Your task to perform on an android device: Go to network settings Image 0: 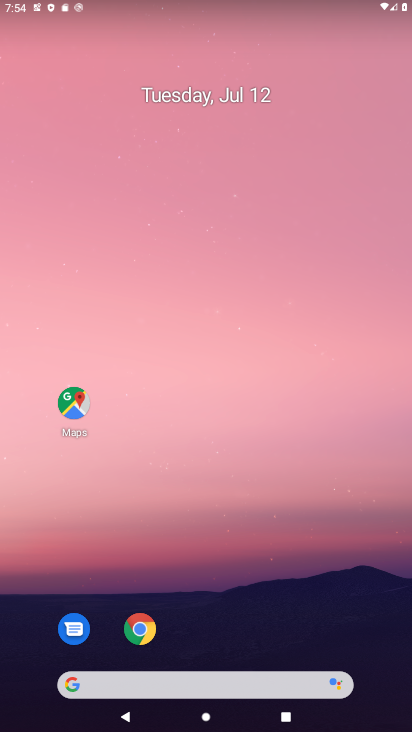
Step 0: drag from (177, 444) to (177, 254)
Your task to perform on an android device: Go to network settings Image 1: 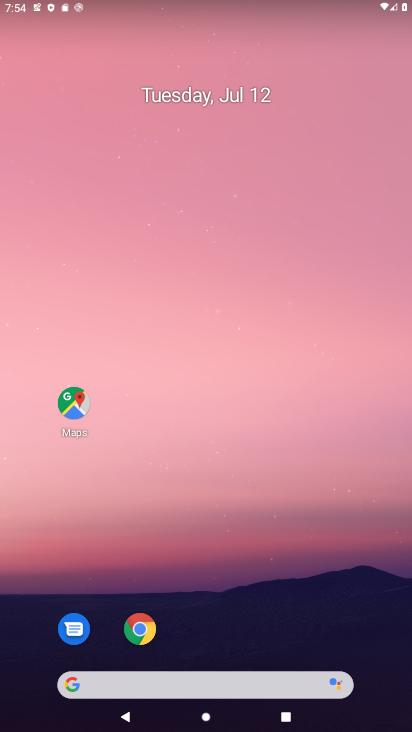
Step 1: drag from (263, 643) to (216, 199)
Your task to perform on an android device: Go to network settings Image 2: 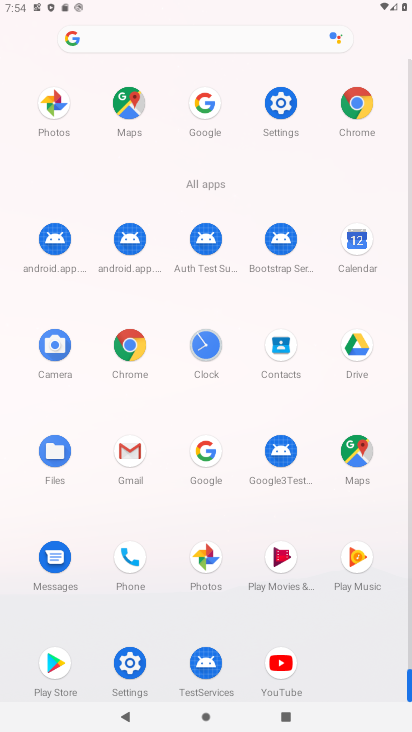
Step 2: click (264, 94)
Your task to perform on an android device: Go to network settings Image 3: 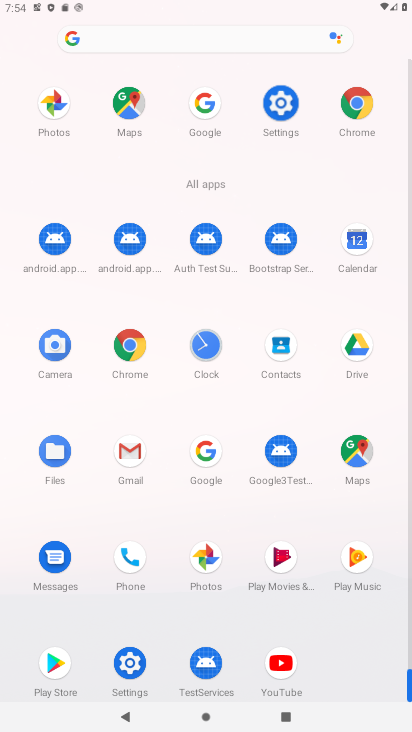
Step 3: click (264, 95)
Your task to perform on an android device: Go to network settings Image 4: 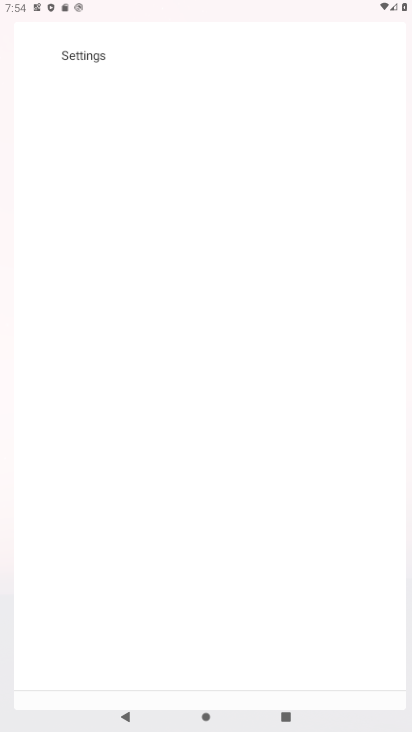
Step 4: click (267, 98)
Your task to perform on an android device: Go to network settings Image 5: 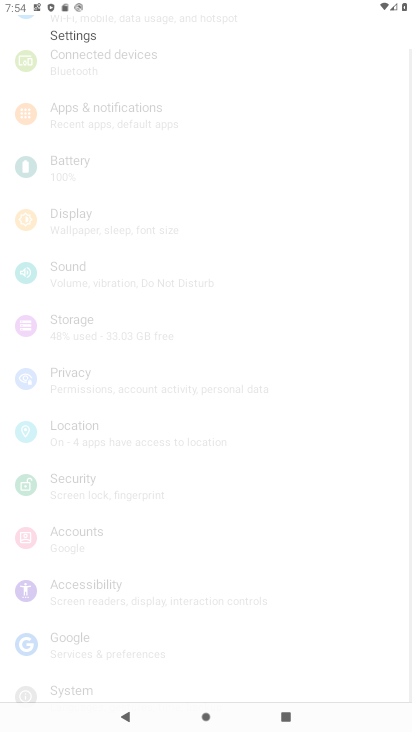
Step 5: click (270, 99)
Your task to perform on an android device: Go to network settings Image 6: 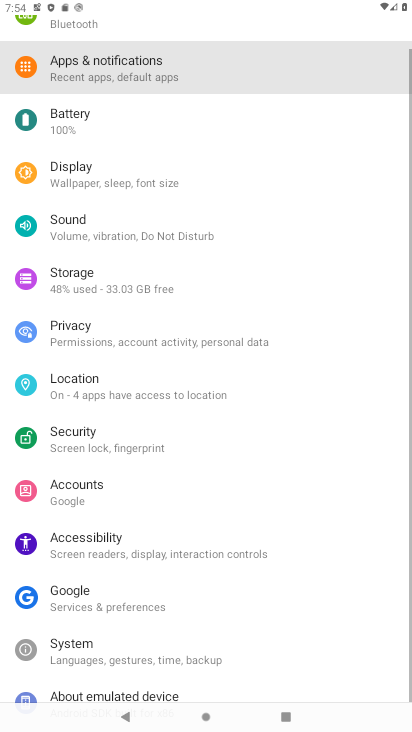
Step 6: click (206, 569)
Your task to perform on an android device: Go to network settings Image 7: 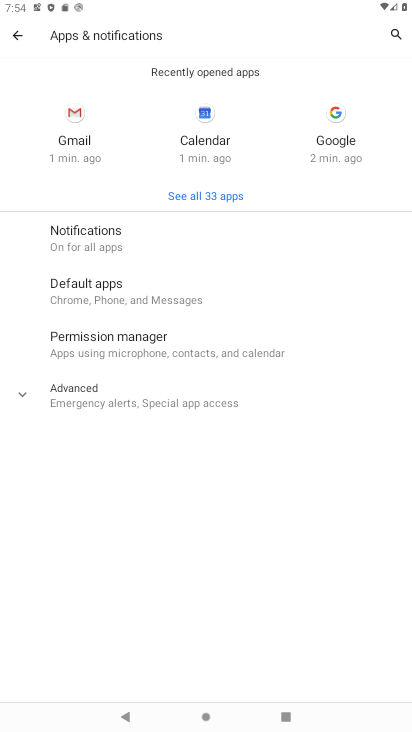
Step 7: click (11, 32)
Your task to perform on an android device: Go to network settings Image 8: 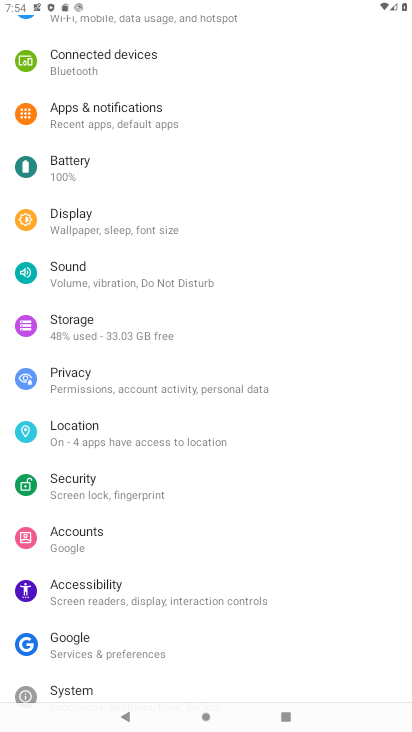
Step 8: drag from (95, 60) to (151, 534)
Your task to perform on an android device: Go to network settings Image 9: 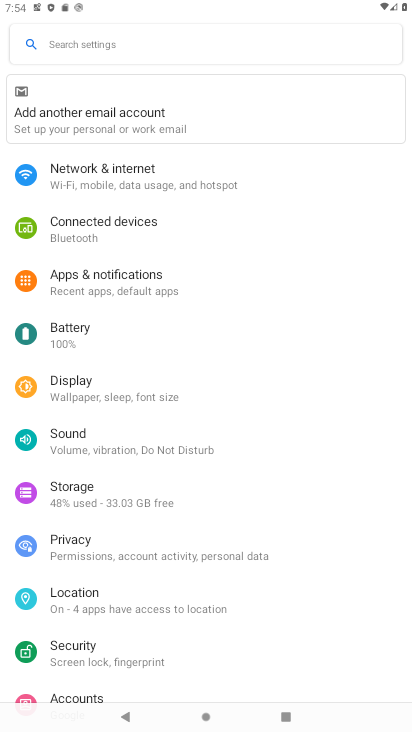
Step 9: click (99, 170)
Your task to perform on an android device: Go to network settings Image 10: 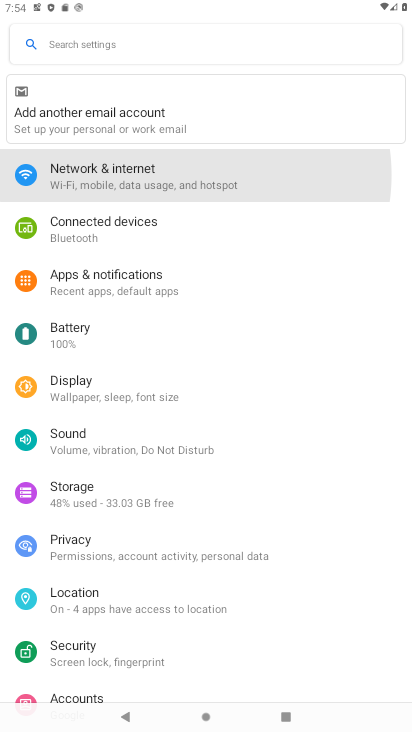
Step 10: click (99, 170)
Your task to perform on an android device: Go to network settings Image 11: 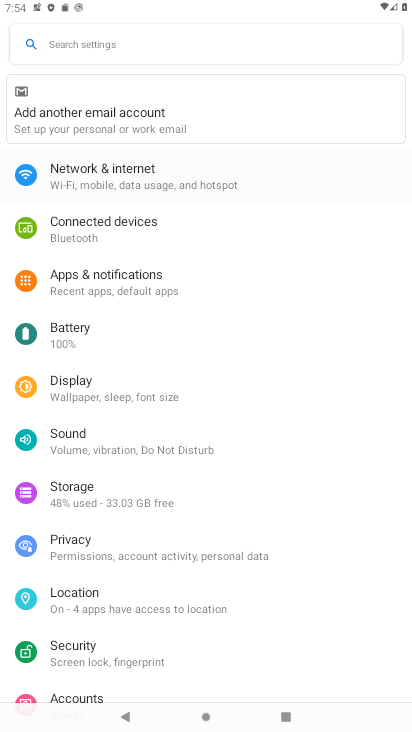
Step 11: click (99, 170)
Your task to perform on an android device: Go to network settings Image 12: 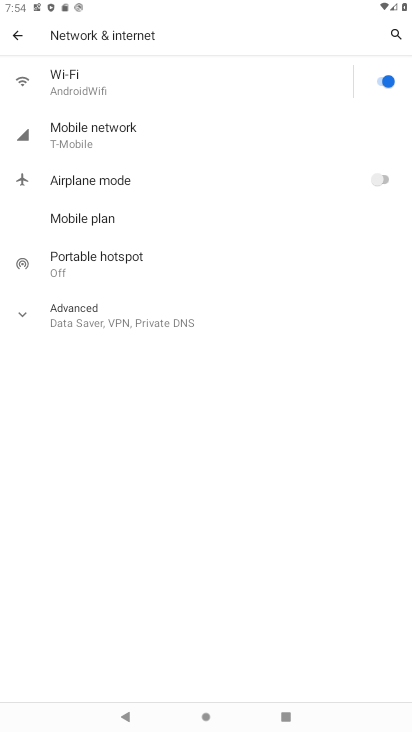
Step 12: task complete